Your task to perform on an android device: turn on location history Image 0: 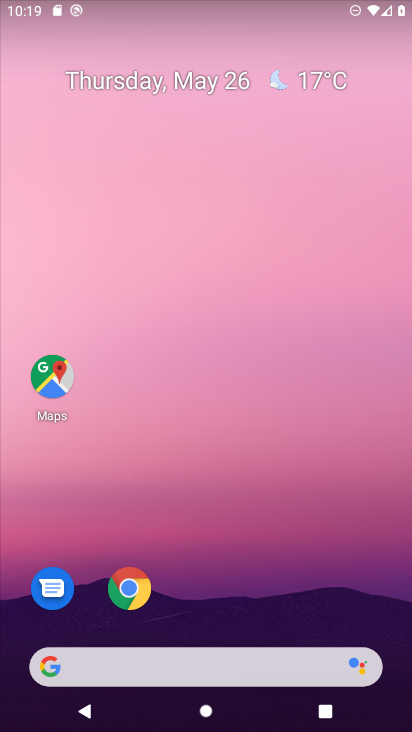
Step 0: click (49, 379)
Your task to perform on an android device: turn on location history Image 1: 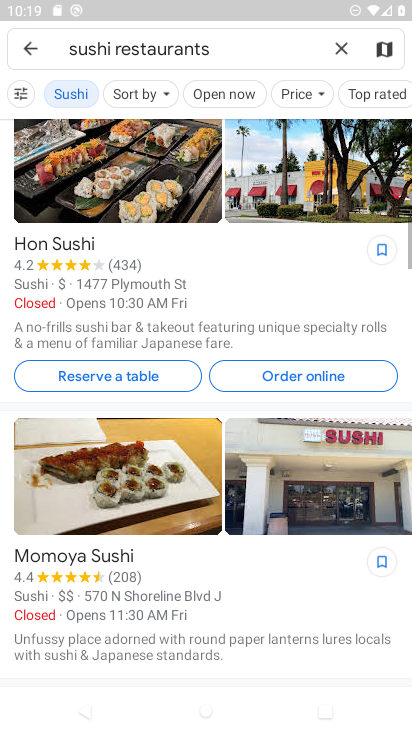
Step 1: click (335, 46)
Your task to perform on an android device: turn on location history Image 2: 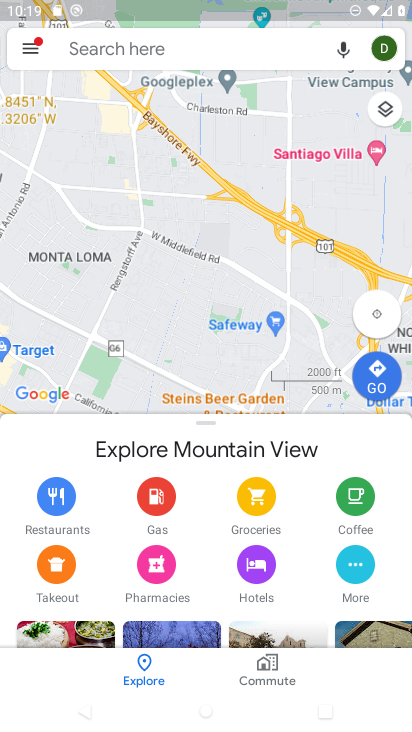
Step 2: click (26, 44)
Your task to perform on an android device: turn on location history Image 3: 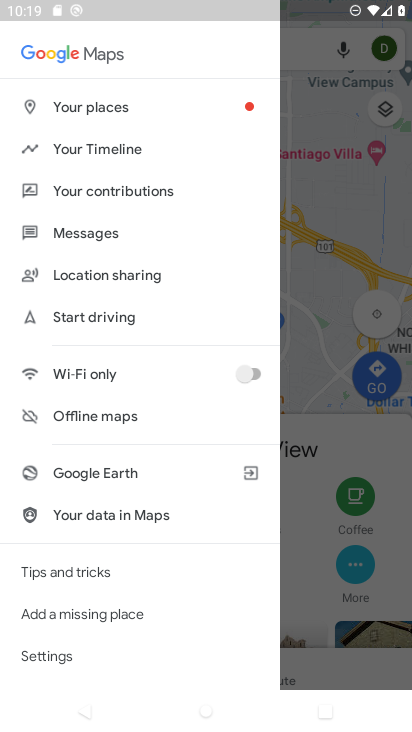
Step 3: click (73, 645)
Your task to perform on an android device: turn on location history Image 4: 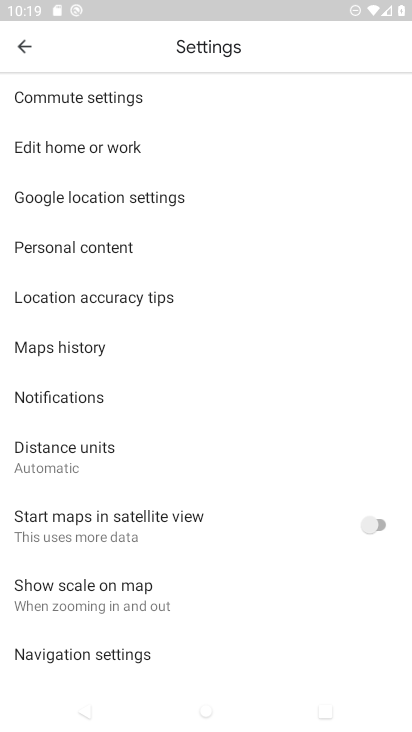
Step 4: click (67, 244)
Your task to perform on an android device: turn on location history Image 5: 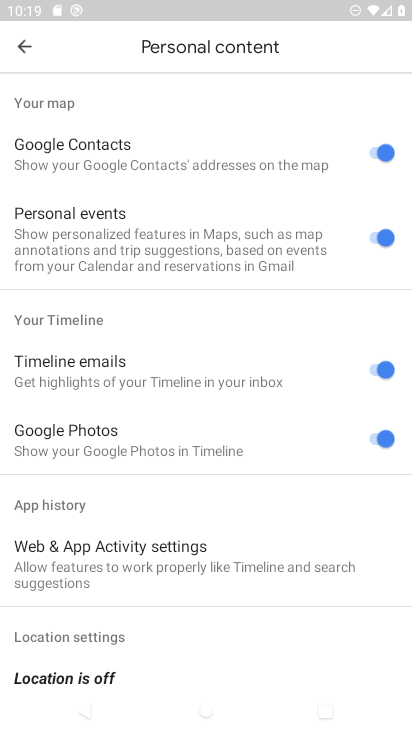
Step 5: drag from (222, 643) to (228, 235)
Your task to perform on an android device: turn on location history Image 6: 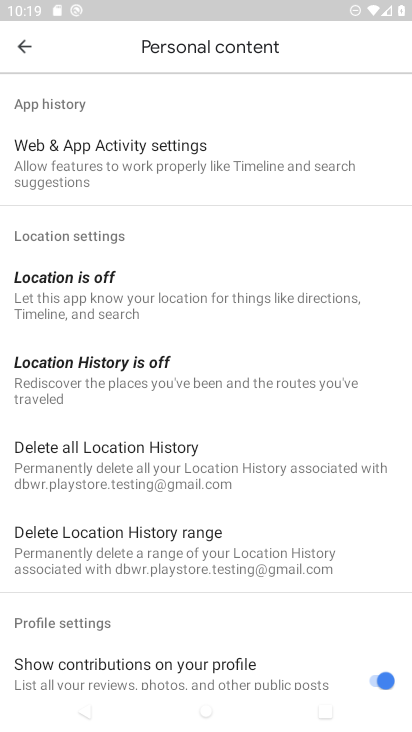
Step 6: click (63, 376)
Your task to perform on an android device: turn on location history Image 7: 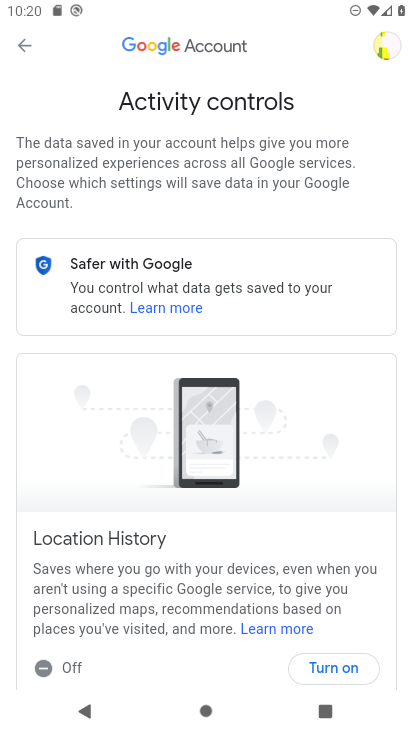
Step 7: click (321, 662)
Your task to perform on an android device: turn on location history Image 8: 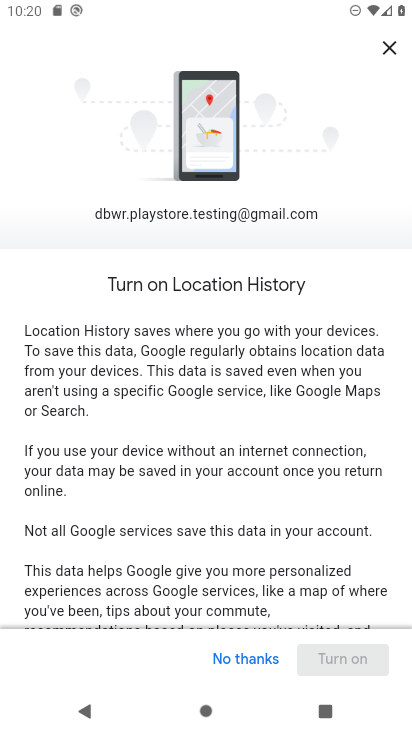
Step 8: drag from (316, 586) to (297, 142)
Your task to perform on an android device: turn on location history Image 9: 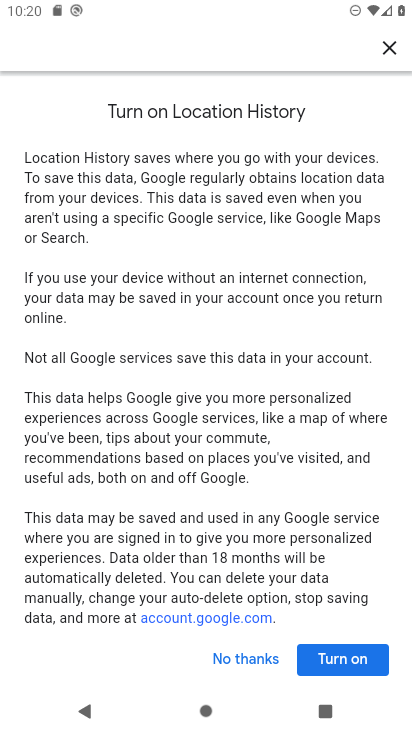
Step 9: click (334, 665)
Your task to perform on an android device: turn on location history Image 10: 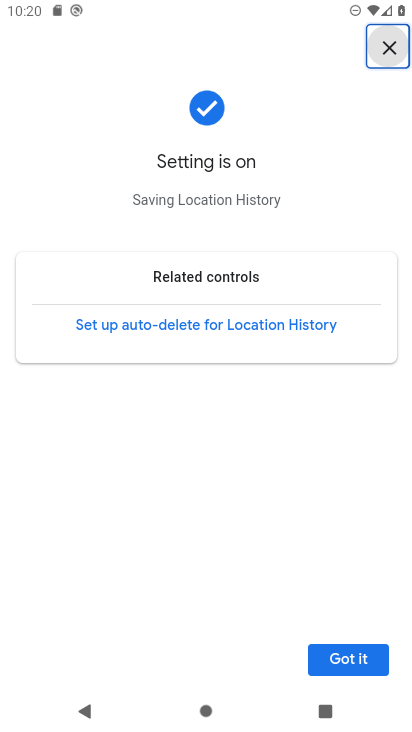
Step 10: click (343, 651)
Your task to perform on an android device: turn on location history Image 11: 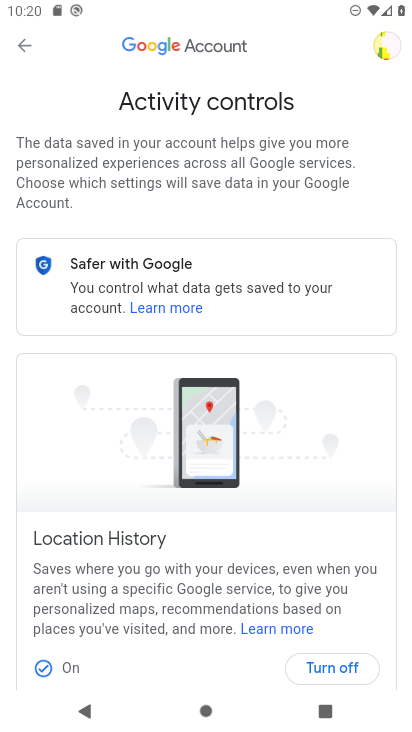
Step 11: task complete